Your task to perform on an android device: empty trash in google photos Image 0: 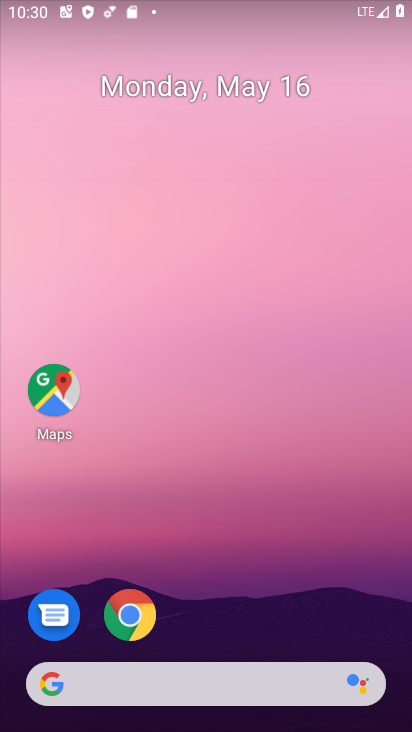
Step 0: drag from (268, 617) to (233, 125)
Your task to perform on an android device: empty trash in google photos Image 1: 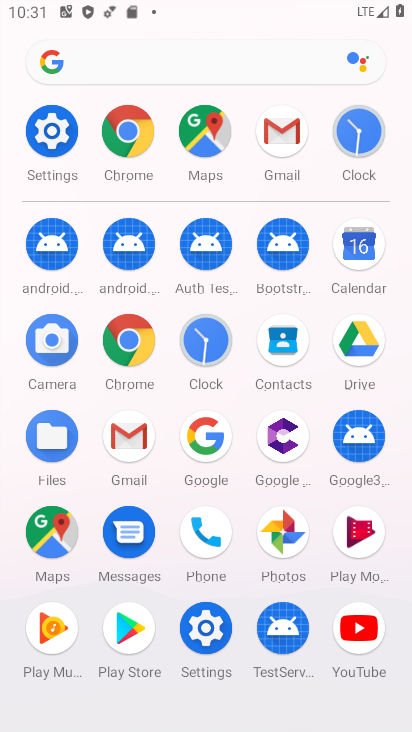
Step 1: click (277, 527)
Your task to perform on an android device: empty trash in google photos Image 2: 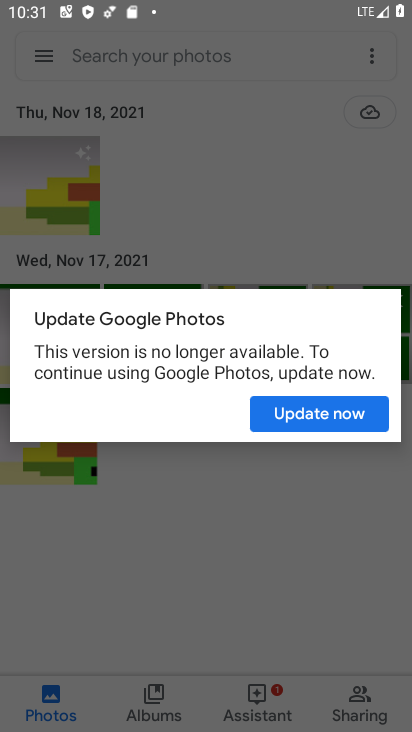
Step 2: task complete